Your task to perform on an android device: change the clock display to digital Image 0: 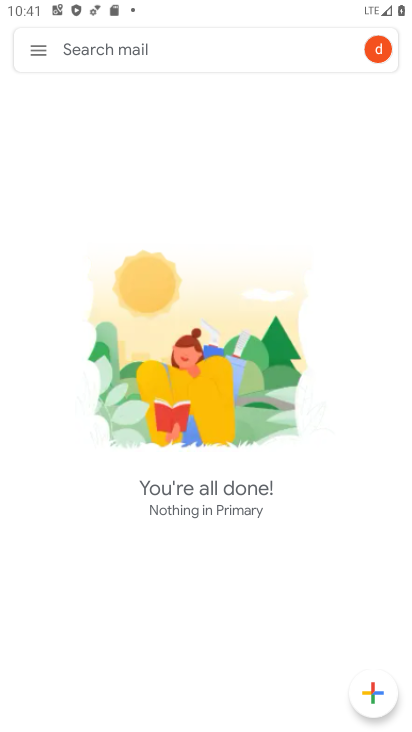
Step 0: press home button
Your task to perform on an android device: change the clock display to digital Image 1: 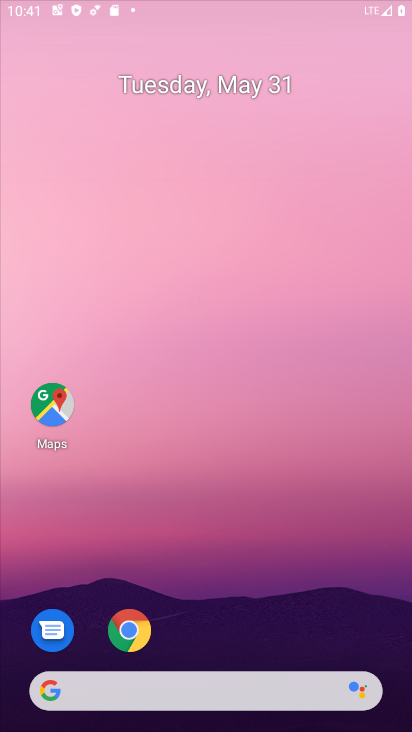
Step 1: drag from (238, 624) to (322, 141)
Your task to perform on an android device: change the clock display to digital Image 2: 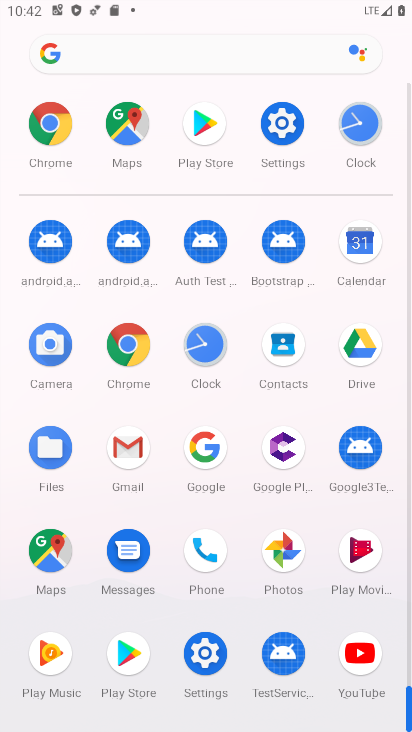
Step 2: click (213, 353)
Your task to perform on an android device: change the clock display to digital Image 3: 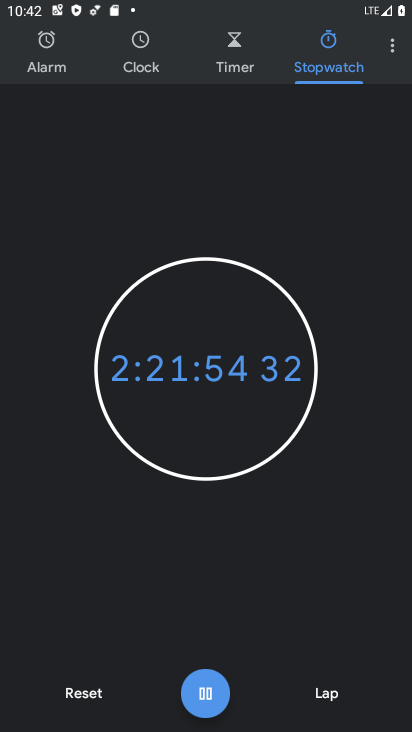
Step 3: click (392, 49)
Your task to perform on an android device: change the clock display to digital Image 4: 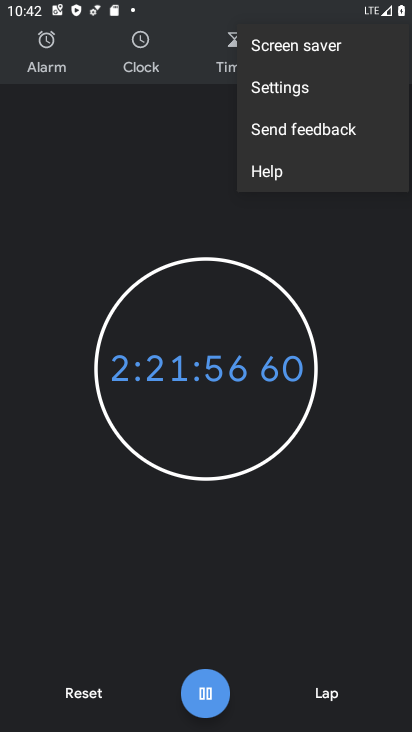
Step 4: click (293, 92)
Your task to perform on an android device: change the clock display to digital Image 5: 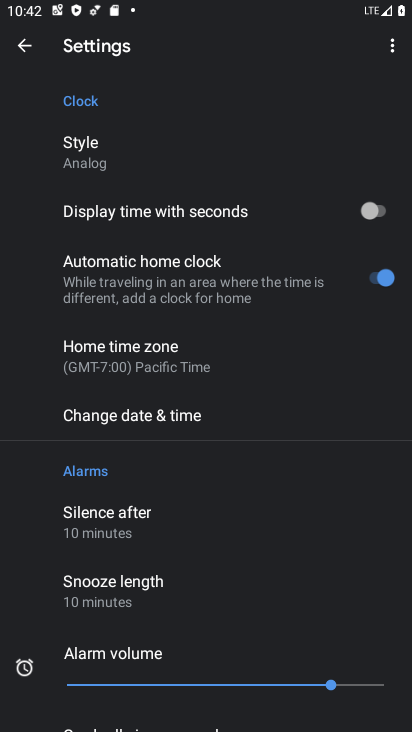
Step 5: click (127, 149)
Your task to perform on an android device: change the clock display to digital Image 6: 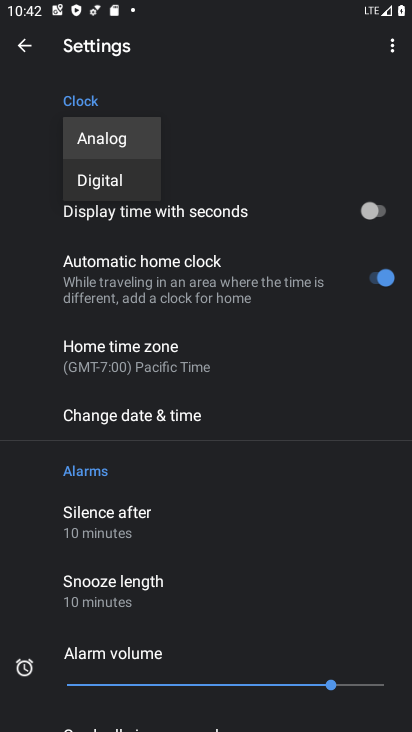
Step 6: click (131, 181)
Your task to perform on an android device: change the clock display to digital Image 7: 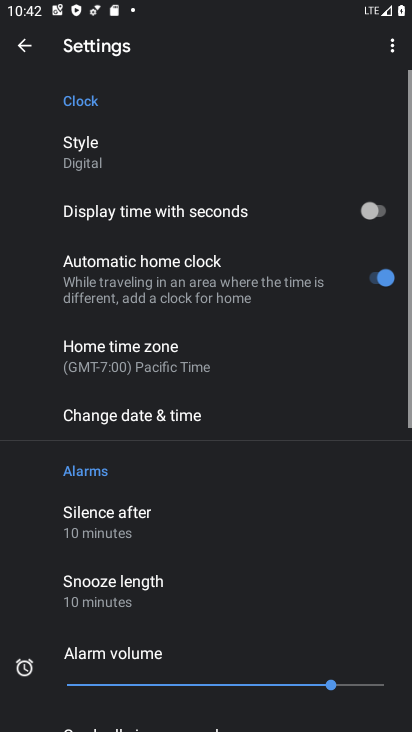
Step 7: task complete